Your task to perform on an android device: Go to eBay Image 0: 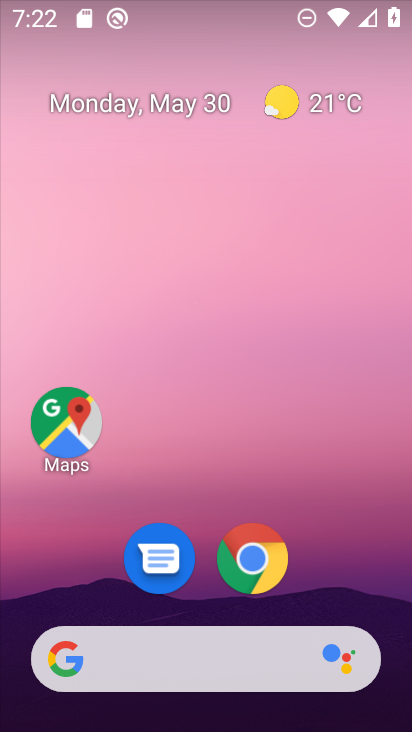
Step 0: click (198, 663)
Your task to perform on an android device: Go to eBay Image 1: 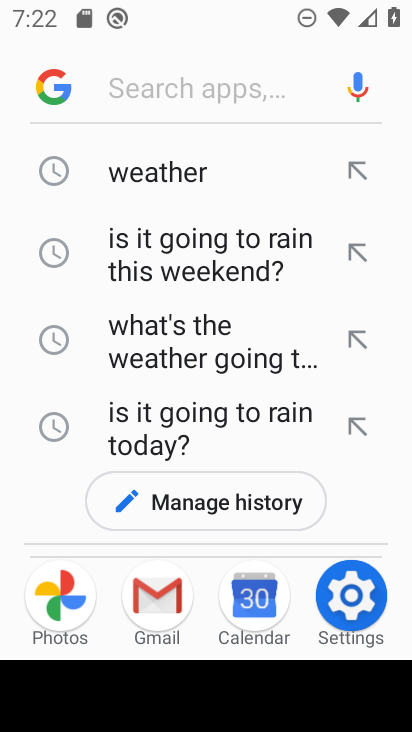
Step 1: type "ebay"
Your task to perform on an android device: Go to eBay Image 2: 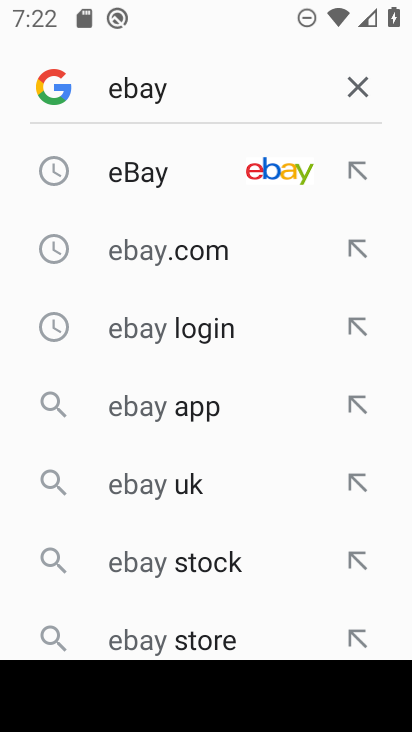
Step 2: click (195, 250)
Your task to perform on an android device: Go to eBay Image 3: 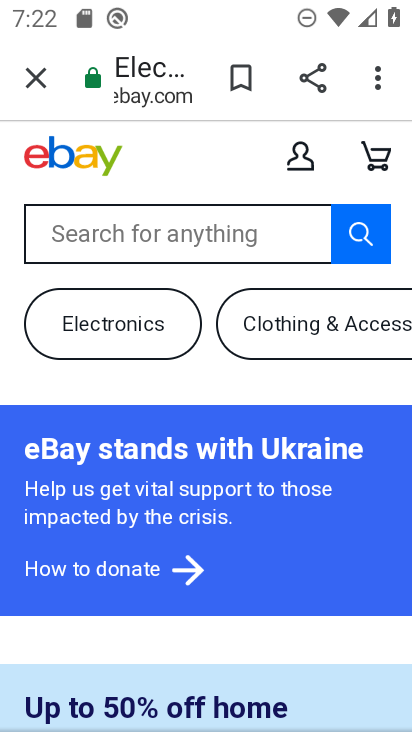
Step 3: task complete